Your task to perform on an android device: turn on wifi Image 0: 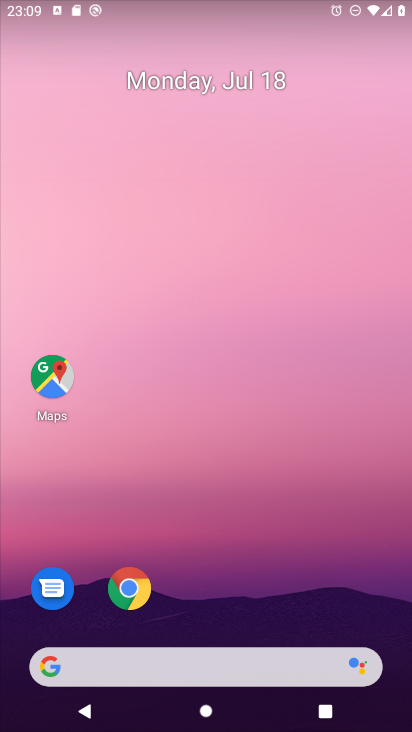
Step 0: drag from (381, 626) to (314, 194)
Your task to perform on an android device: turn on wifi Image 1: 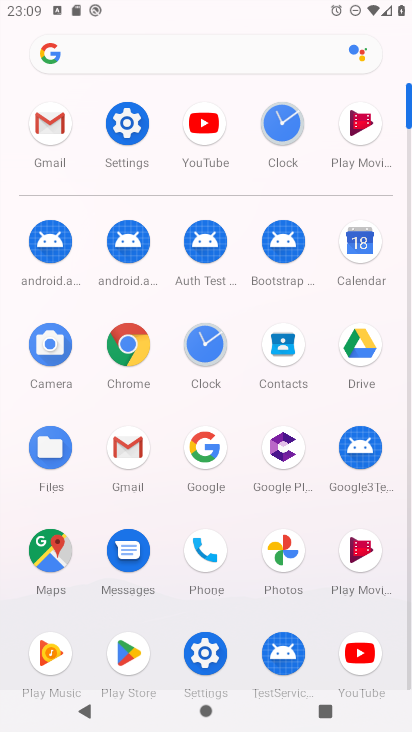
Step 1: click (207, 649)
Your task to perform on an android device: turn on wifi Image 2: 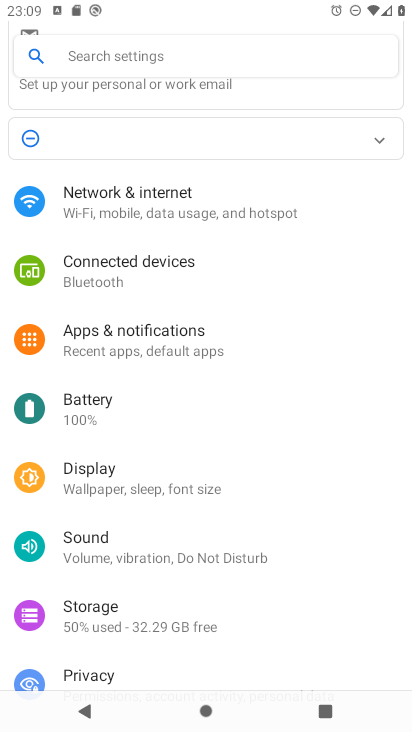
Step 2: click (101, 206)
Your task to perform on an android device: turn on wifi Image 3: 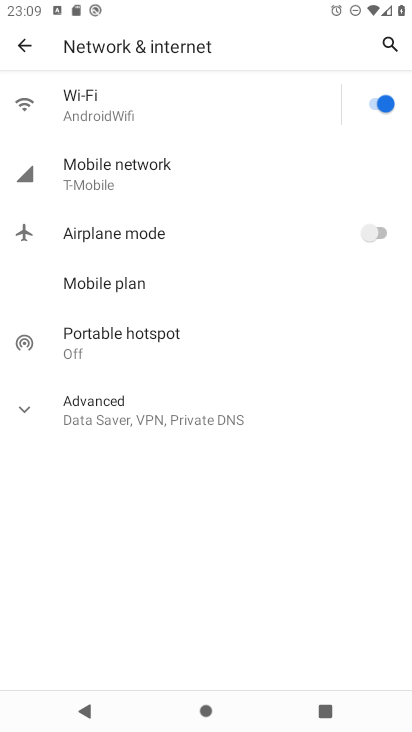
Step 3: task complete